Your task to perform on an android device: Go to location settings Image 0: 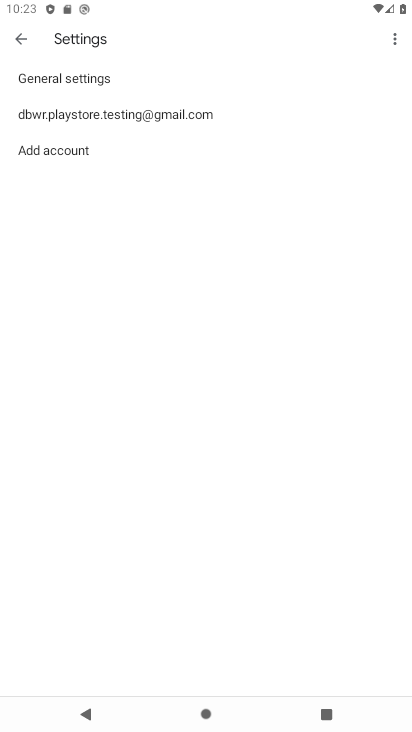
Step 0: press home button
Your task to perform on an android device: Go to location settings Image 1: 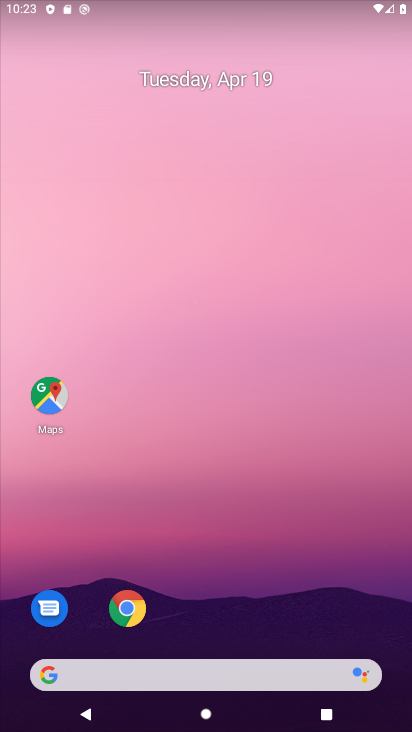
Step 1: drag from (231, 579) to (264, 260)
Your task to perform on an android device: Go to location settings Image 2: 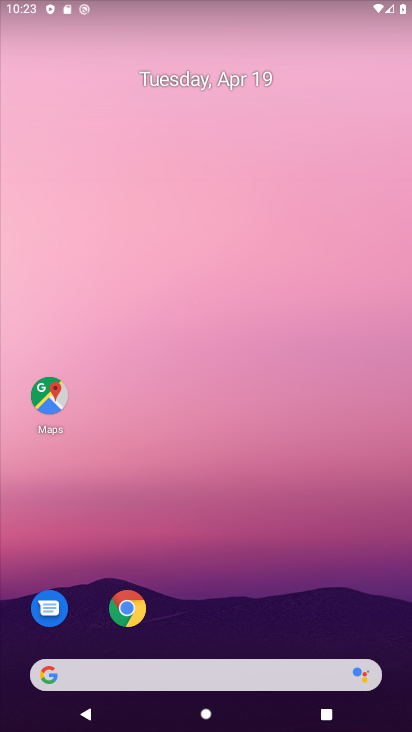
Step 2: drag from (349, 590) to (271, 107)
Your task to perform on an android device: Go to location settings Image 3: 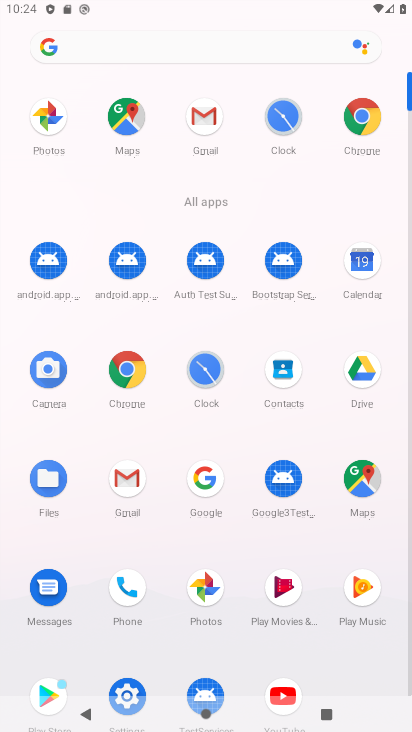
Step 3: click (411, 621)
Your task to perform on an android device: Go to location settings Image 4: 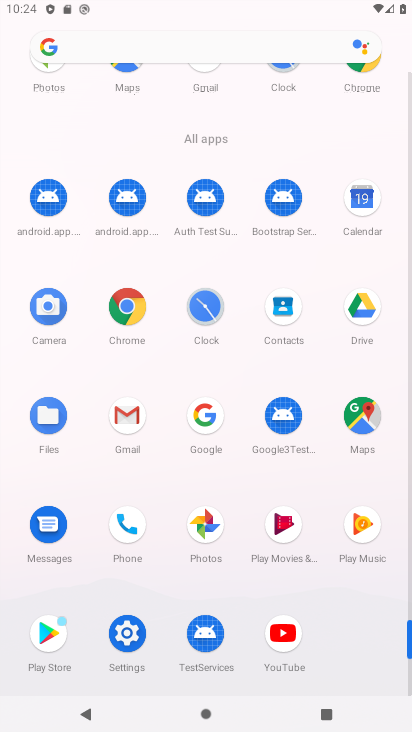
Step 4: click (127, 629)
Your task to perform on an android device: Go to location settings Image 5: 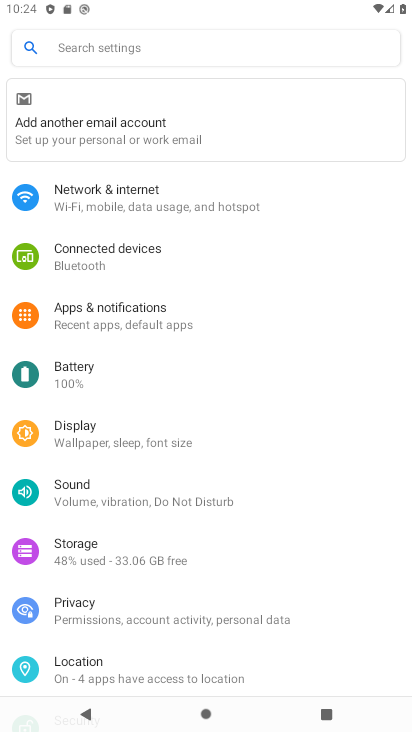
Step 5: click (142, 664)
Your task to perform on an android device: Go to location settings Image 6: 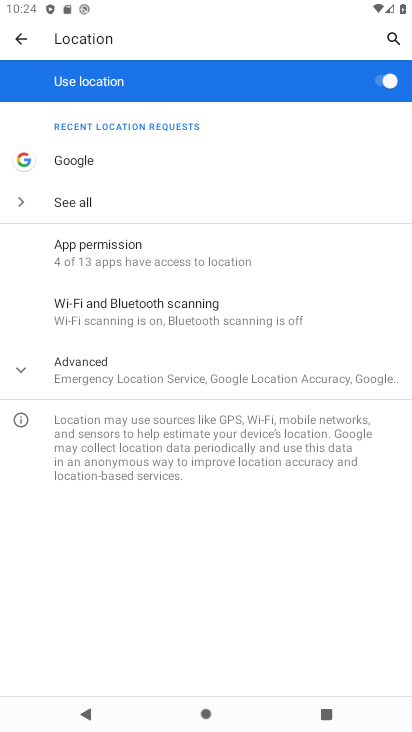
Step 6: task complete